Your task to perform on an android device: Search for pizza restaurants on Maps Image 0: 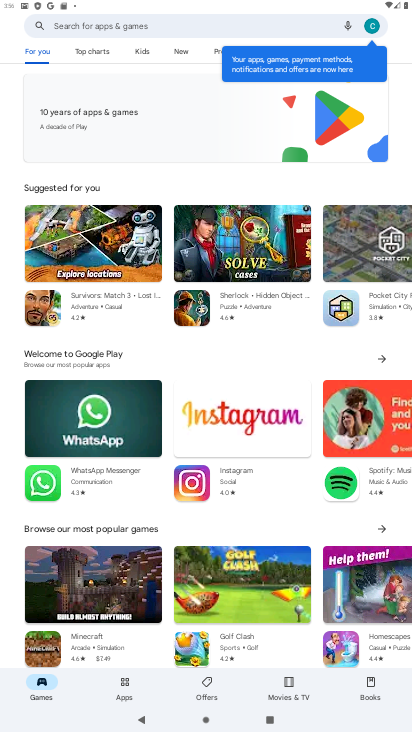
Step 0: press home button
Your task to perform on an android device: Search for pizza restaurants on Maps Image 1: 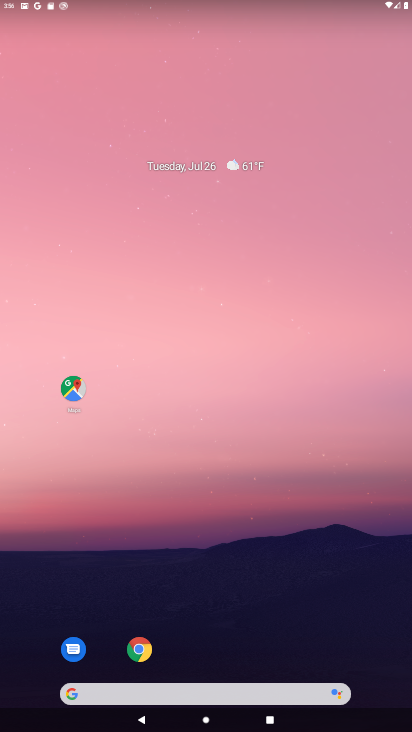
Step 1: click (199, 688)
Your task to perform on an android device: Search for pizza restaurants on Maps Image 2: 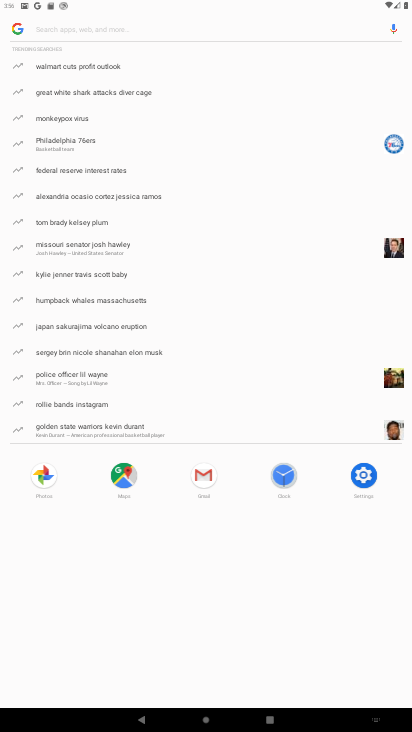
Step 2: type "pizza restaurants "
Your task to perform on an android device: Search for pizza restaurants on Maps Image 3: 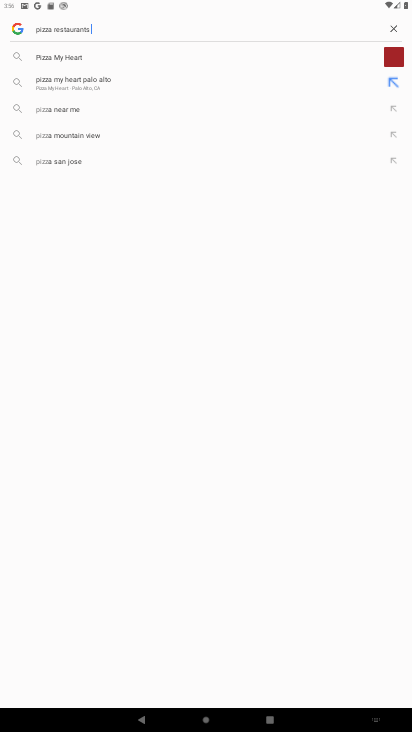
Step 3: press enter
Your task to perform on an android device: Search for pizza restaurants on Maps Image 4: 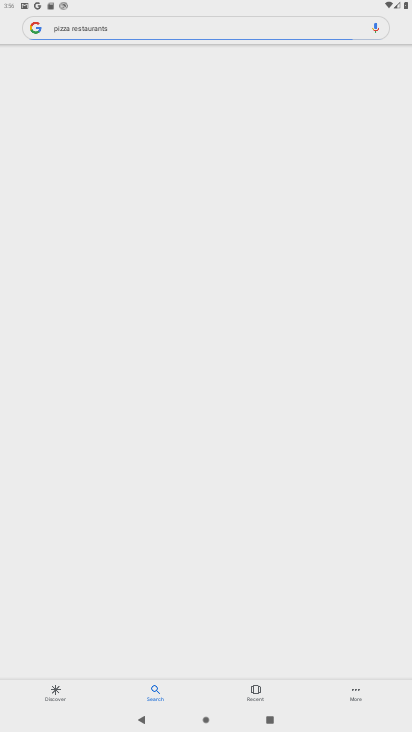
Step 4: task complete